Your task to perform on an android device: Open Google Image 0: 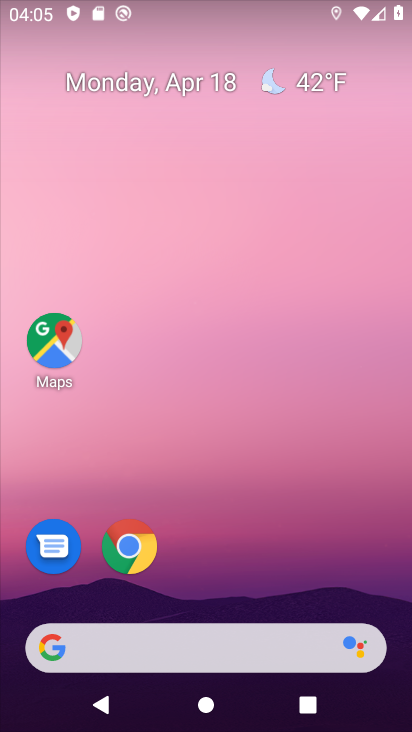
Step 0: click (222, 423)
Your task to perform on an android device: Open Google Image 1: 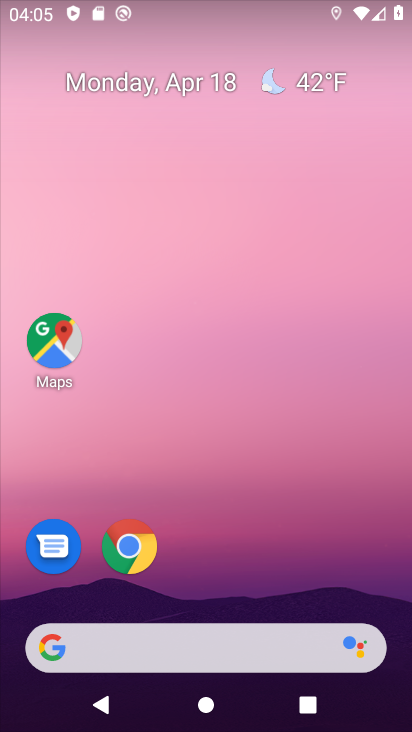
Step 1: drag from (206, 251) to (195, 174)
Your task to perform on an android device: Open Google Image 2: 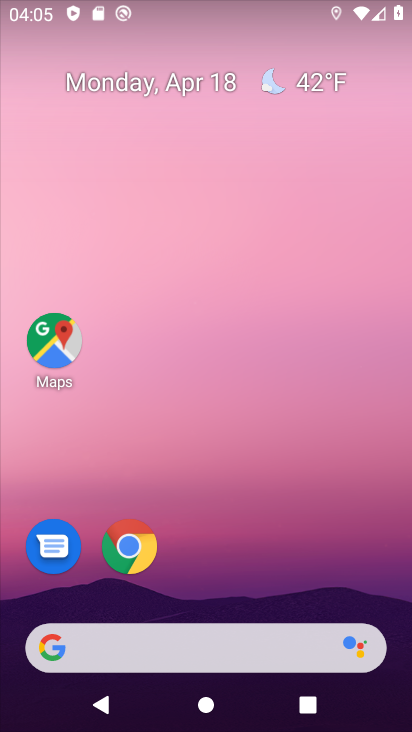
Step 2: drag from (256, 556) to (206, 260)
Your task to perform on an android device: Open Google Image 3: 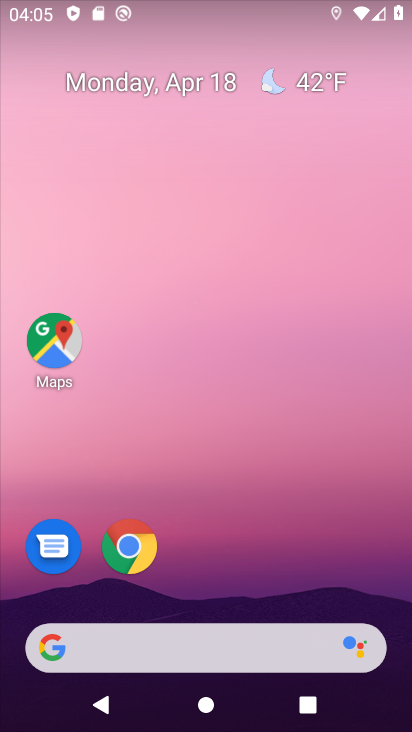
Step 3: drag from (264, 458) to (264, 213)
Your task to perform on an android device: Open Google Image 4: 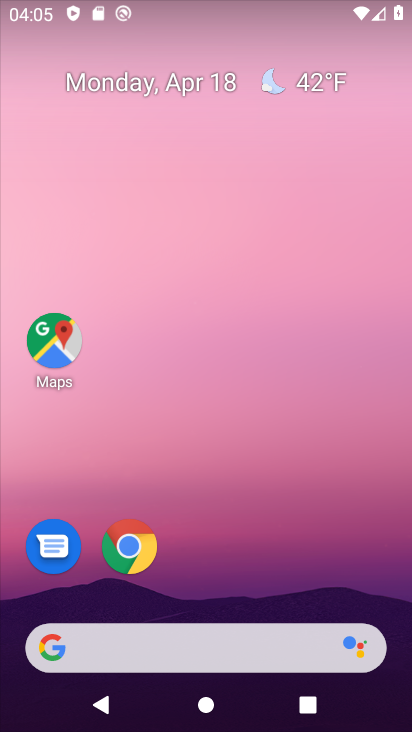
Step 4: drag from (265, 385) to (253, 248)
Your task to perform on an android device: Open Google Image 5: 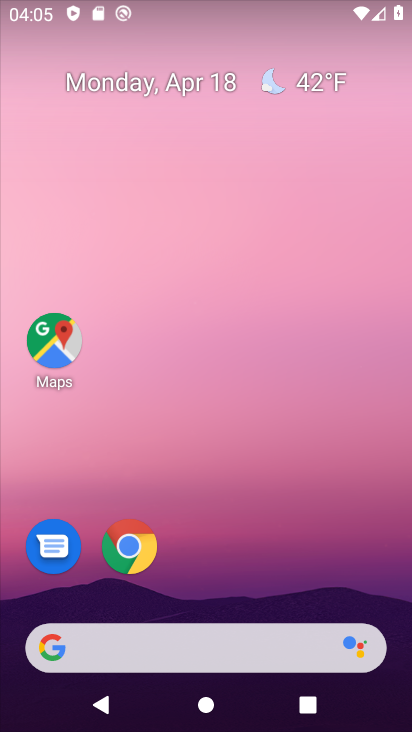
Step 5: drag from (241, 526) to (284, 176)
Your task to perform on an android device: Open Google Image 6: 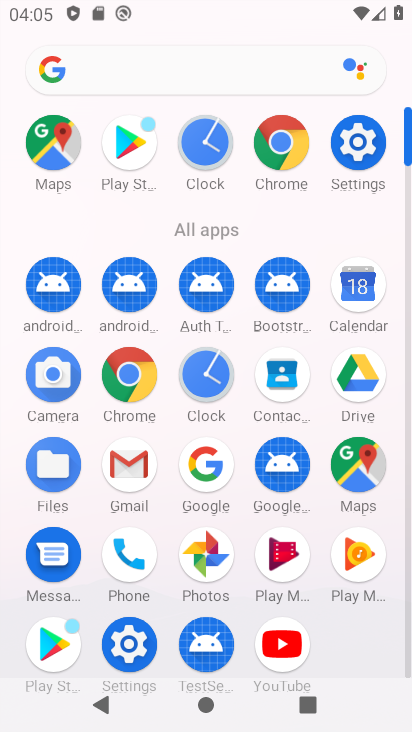
Step 6: click (196, 463)
Your task to perform on an android device: Open Google Image 7: 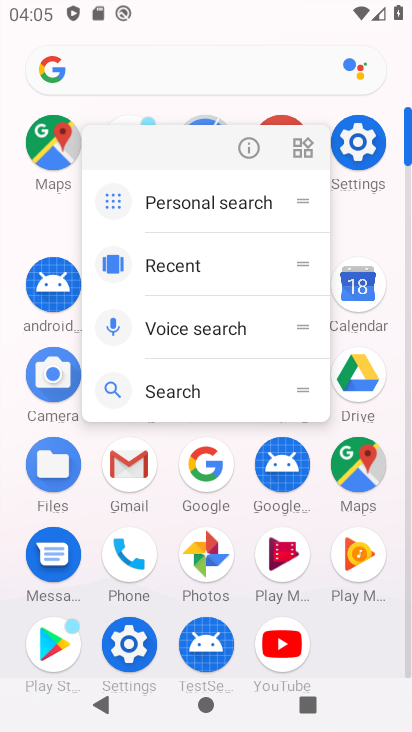
Step 7: click (196, 463)
Your task to perform on an android device: Open Google Image 8: 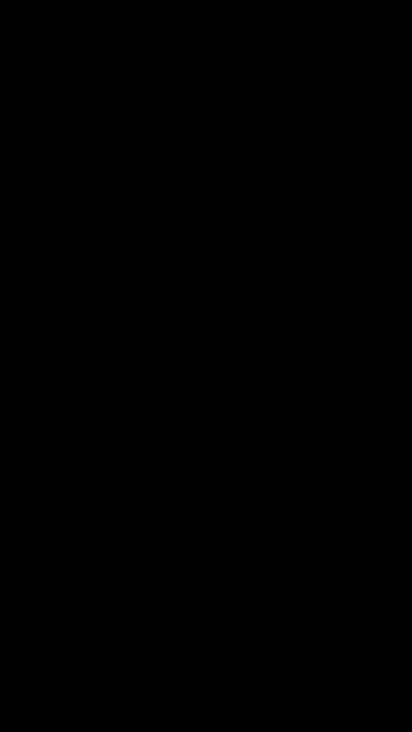
Step 8: task complete